Your task to perform on an android device: turn vacation reply on in the gmail app Image 0: 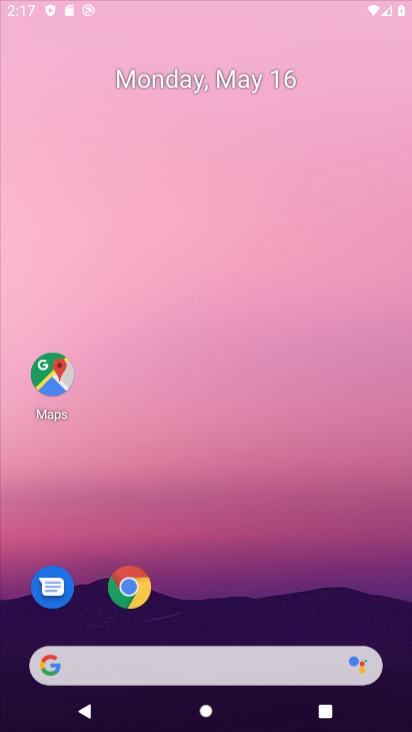
Step 0: click (282, 412)
Your task to perform on an android device: turn vacation reply on in the gmail app Image 1: 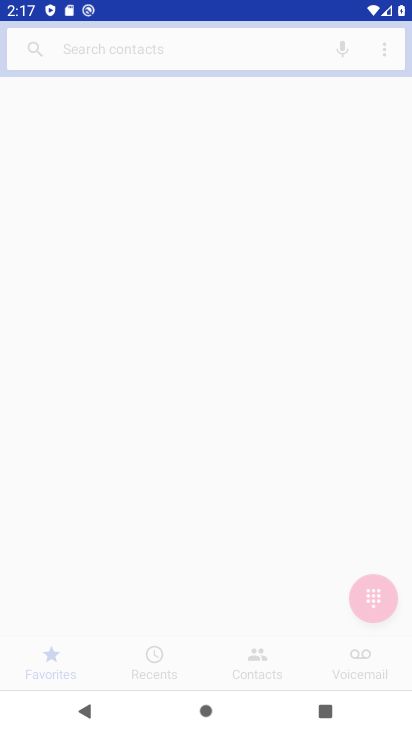
Step 1: drag from (187, 633) to (264, 275)
Your task to perform on an android device: turn vacation reply on in the gmail app Image 2: 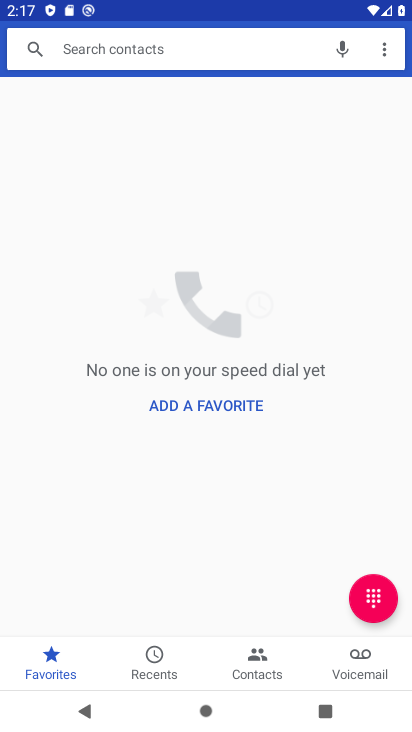
Step 2: press home button
Your task to perform on an android device: turn vacation reply on in the gmail app Image 3: 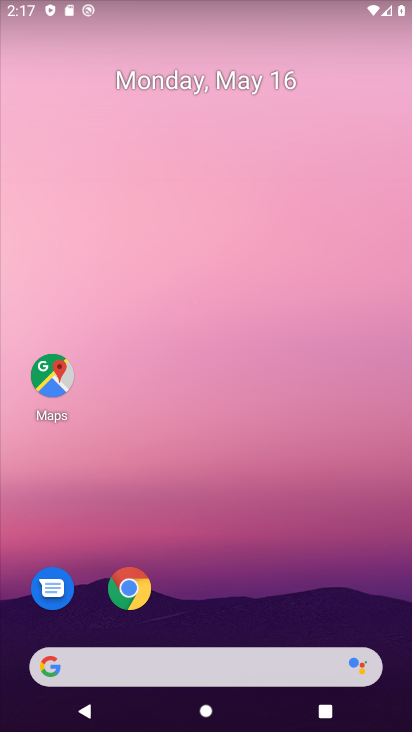
Step 3: drag from (176, 637) to (282, 180)
Your task to perform on an android device: turn vacation reply on in the gmail app Image 4: 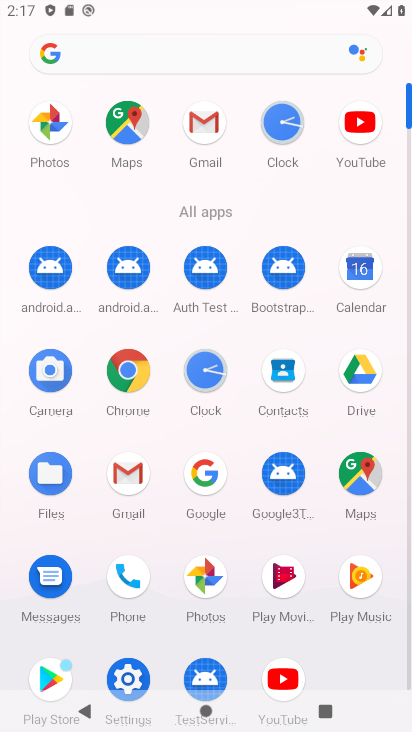
Step 4: click (120, 471)
Your task to perform on an android device: turn vacation reply on in the gmail app Image 5: 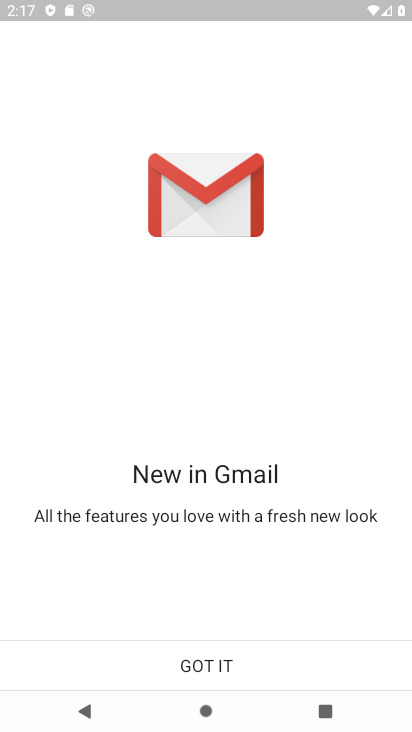
Step 5: click (251, 679)
Your task to perform on an android device: turn vacation reply on in the gmail app Image 6: 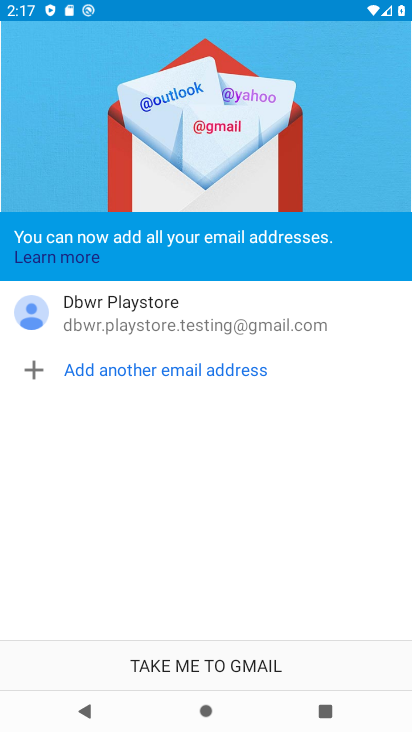
Step 6: click (251, 679)
Your task to perform on an android device: turn vacation reply on in the gmail app Image 7: 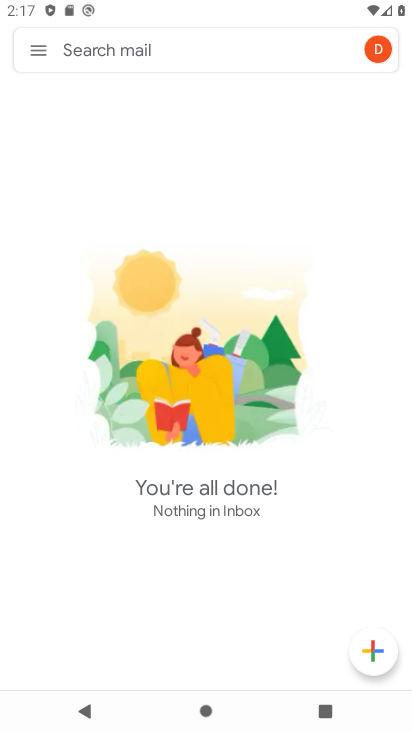
Step 7: click (49, 51)
Your task to perform on an android device: turn vacation reply on in the gmail app Image 8: 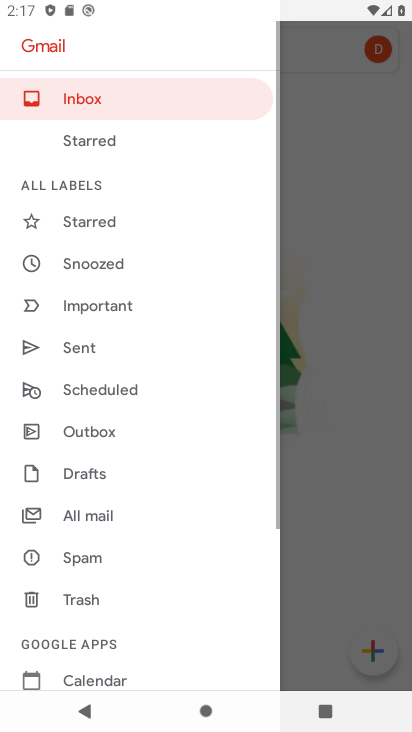
Step 8: drag from (105, 493) to (217, 248)
Your task to perform on an android device: turn vacation reply on in the gmail app Image 9: 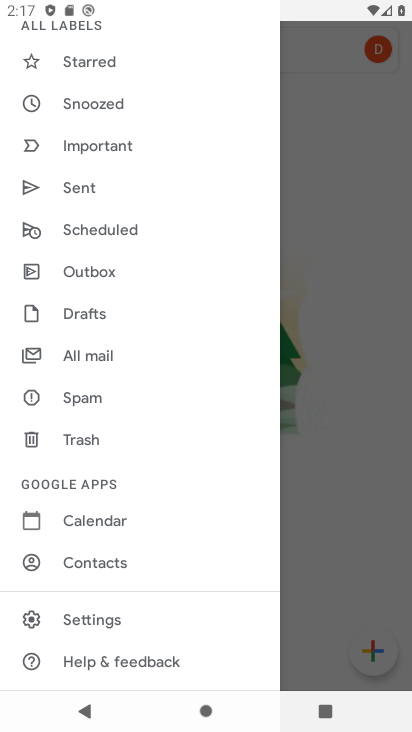
Step 9: click (143, 622)
Your task to perform on an android device: turn vacation reply on in the gmail app Image 10: 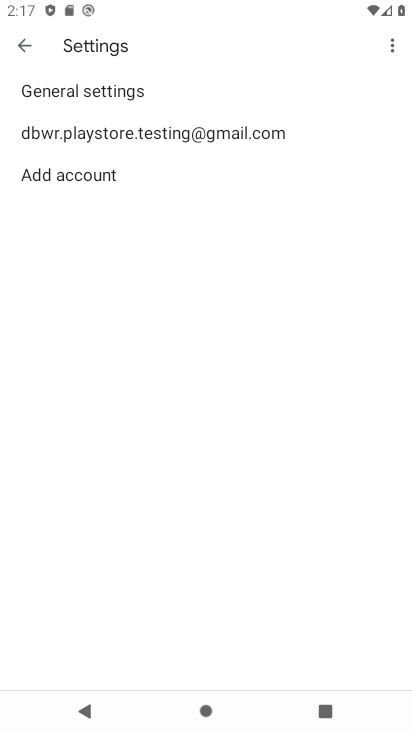
Step 10: click (215, 136)
Your task to perform on an android device: turn vacation reply on in the gmail app Image 11: 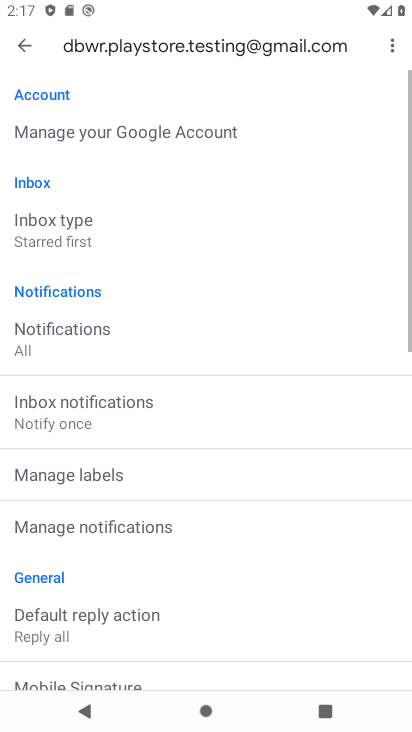
Step 11: drag from (167, 622) to (316, 157)
Your task to perform on an android device: turn vacation reply on in the gmail app Image 12: 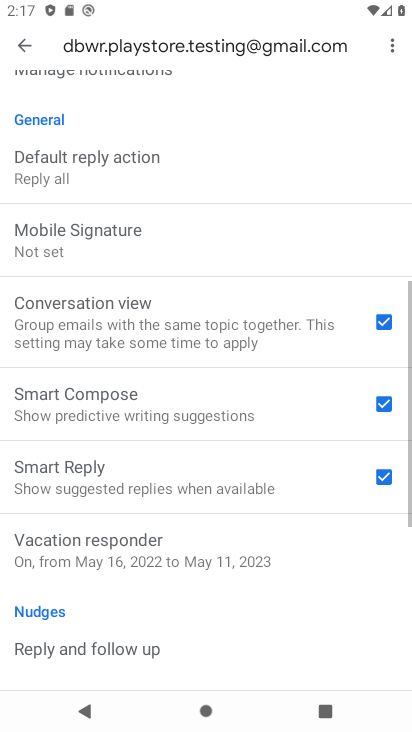
Step 12: drag from (138, 628) to (274, 279)
Your task to perform on an android device: turn vacation reply on in the gmail app Image 13: 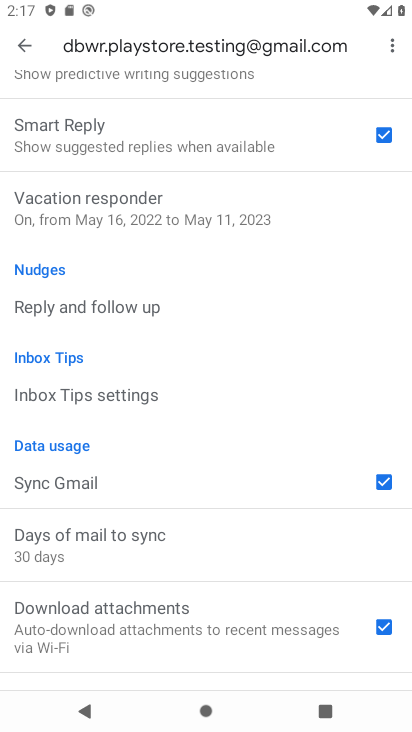
Step 13: drag from (160, 629) to (294, 173)
Your task to perform on an android device: turn vacation reply on in the gmail app Image 14: 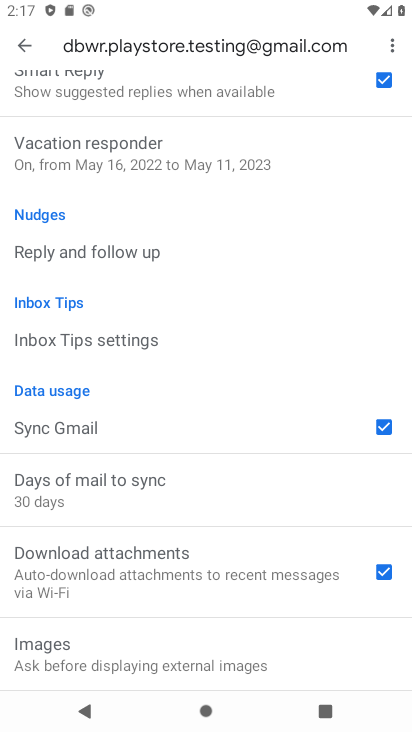
Step 14: click (226, 150)
Your task to perform on an android device: turn vacation reply on in the gmail app Image 15: 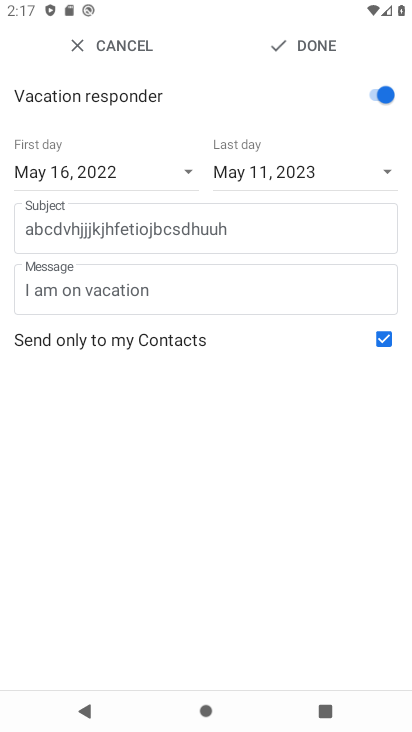
Step 15: task complete